Your task to perform on an android device: turn off sleep mode Image 0: 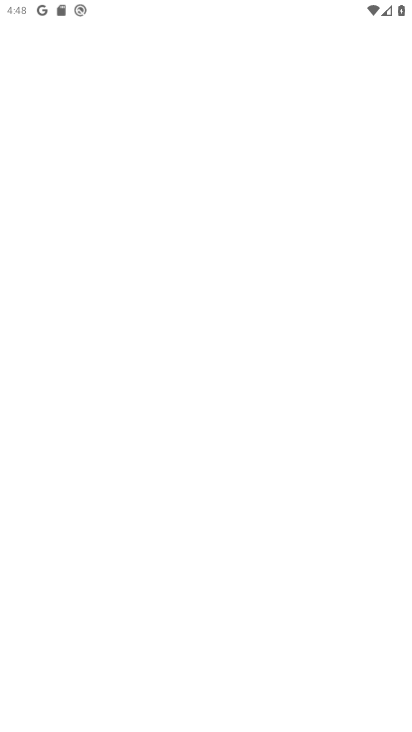
Step 0: press home button
Your task to perform on an android device: turn off sleep mode Image 1: 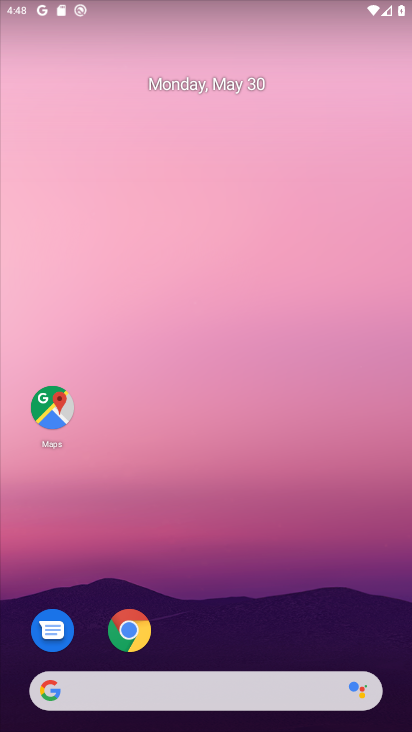
Step 1: drag from (288, 635) to (293, 130)
Your task to perform on an android device: turn off sleep mode Image 2: 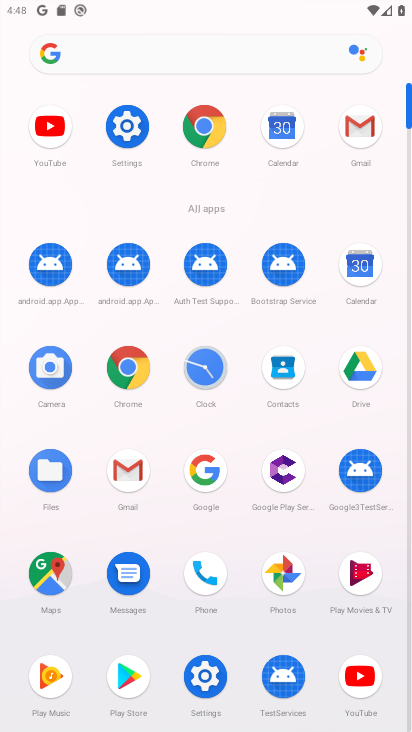
Step 2: click (206, 678)
Your task to perform on an android device: turn off sleep mode Image 3: 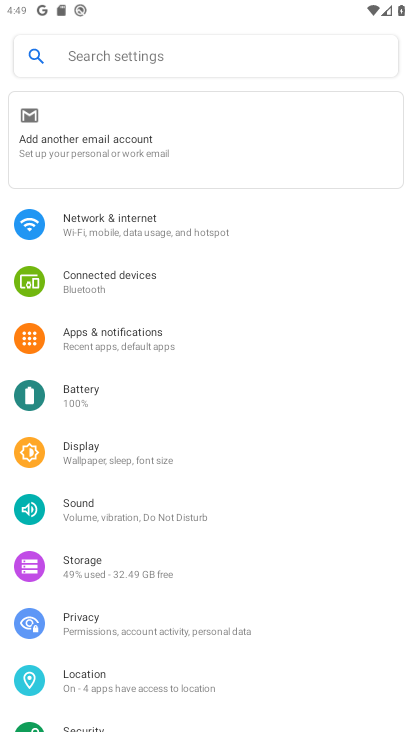
Step 3: click (89, 445)
Your task to perform on an android device: turn off sleep mode Image 4: 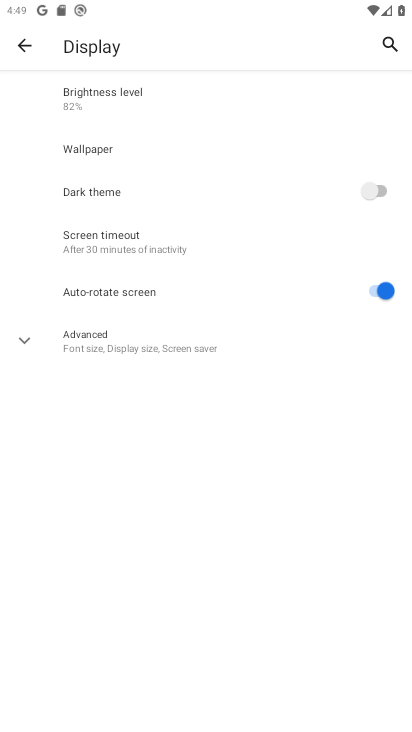
Step 4: task complete